Your task to perform on an android device: Add "acer predator" to the cart on walmart.com Image 0: 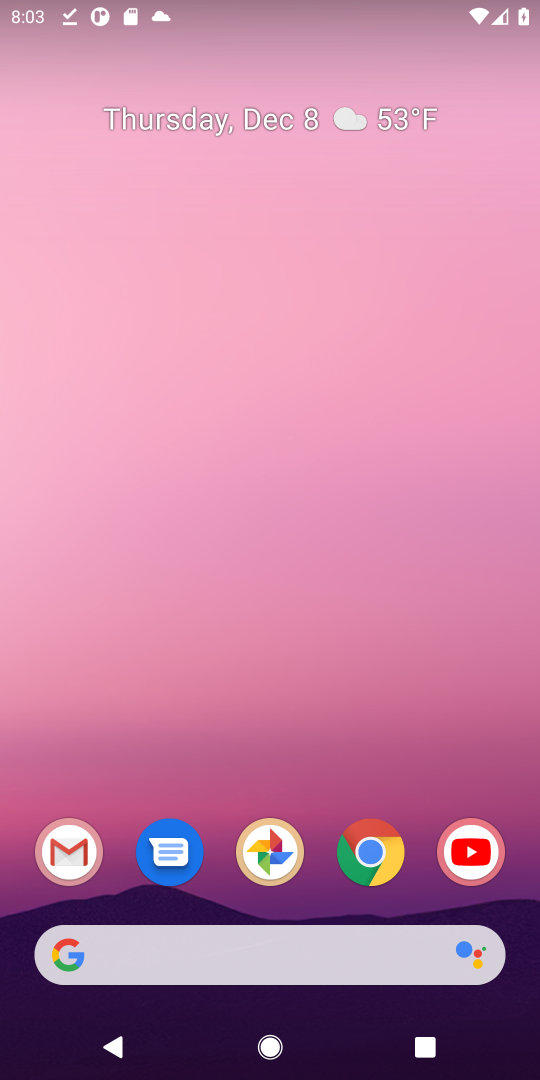
Step 0: click (180, 939)
Your task to perform on an android device: Add "acer predator" to the cart on walmart.com Image 1: 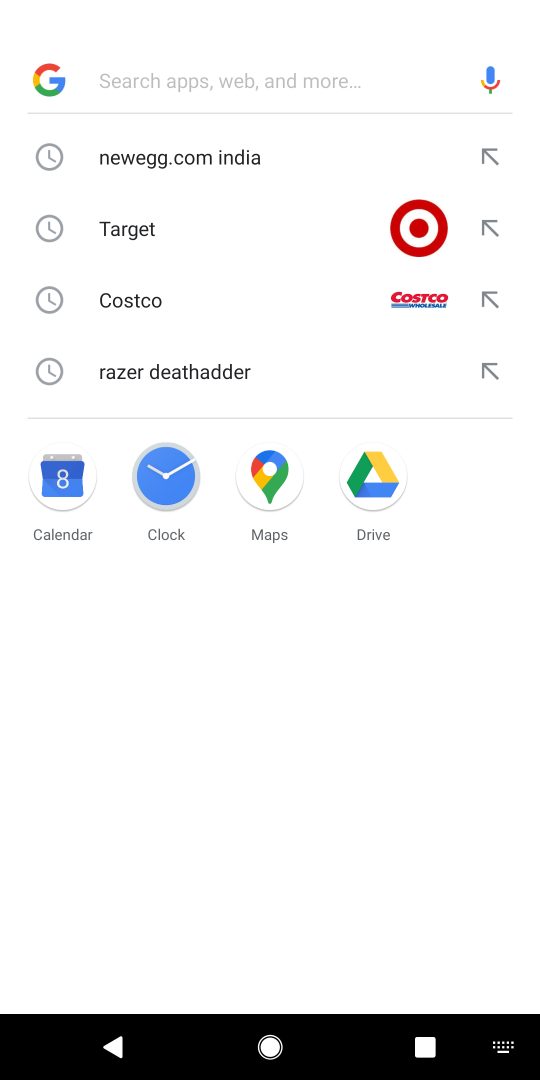
Step 1: type "walmart"
Your task to perform on an android device: Add "acer predator" to the cart on walmart.com Image 2: 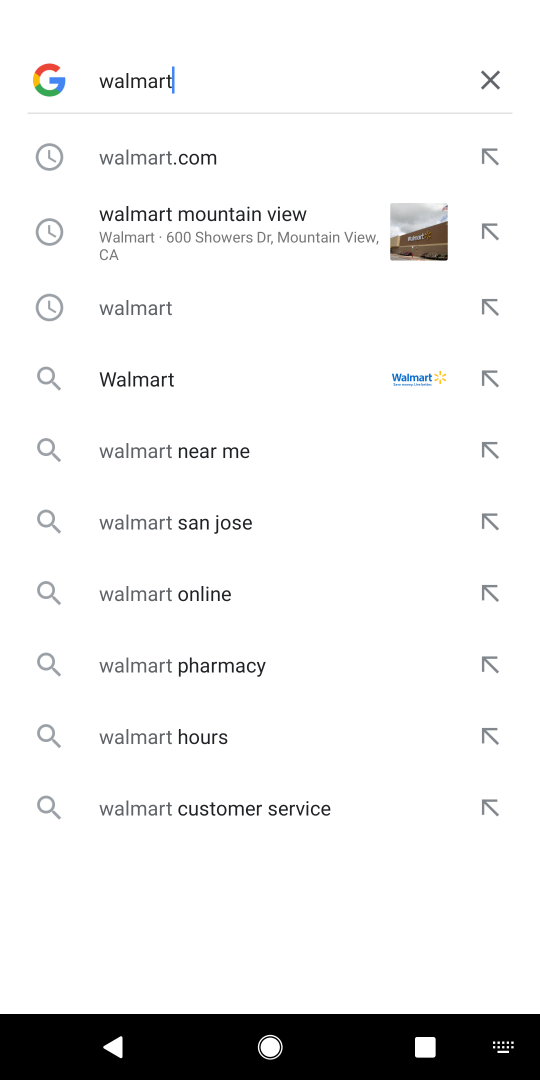
Step 2: click (155, 174)
Your task to perform on an android device: Add "acer predator" to the cart on walmart.com Image 3: 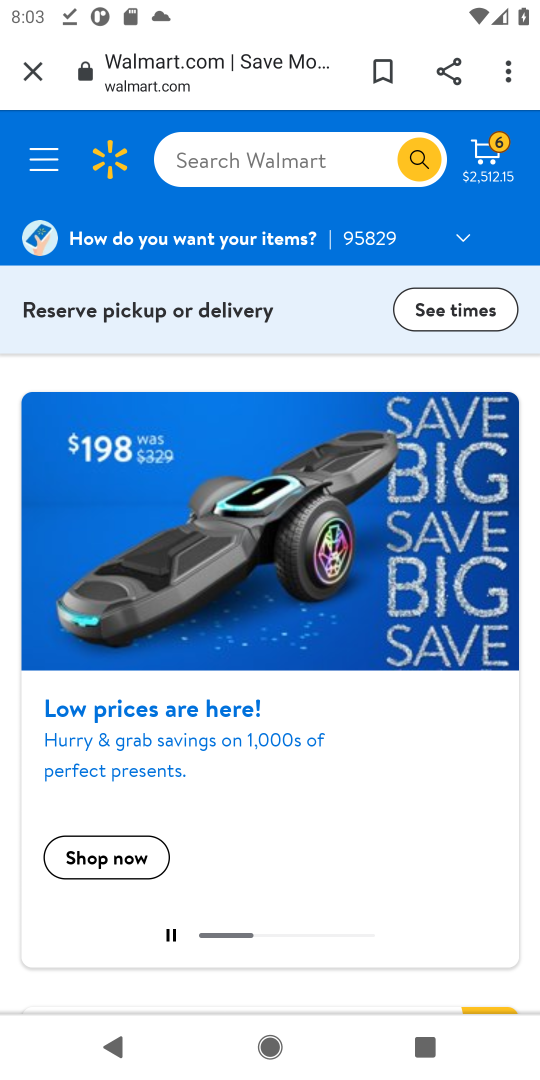
Step 3: click (249, 170)
Your task to perform on an android device: Add "acer predator" to the cart on walmart.com Image 4: 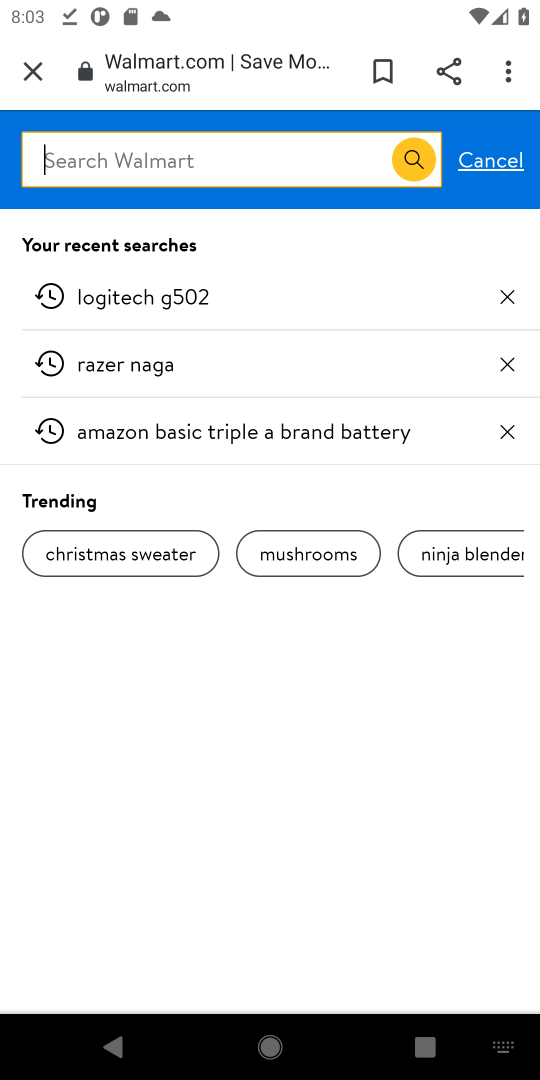
Step 4: type "acer predator"
Your task to perform on an android device: Add "acer predator" to the cart on walmart.com Image 5: 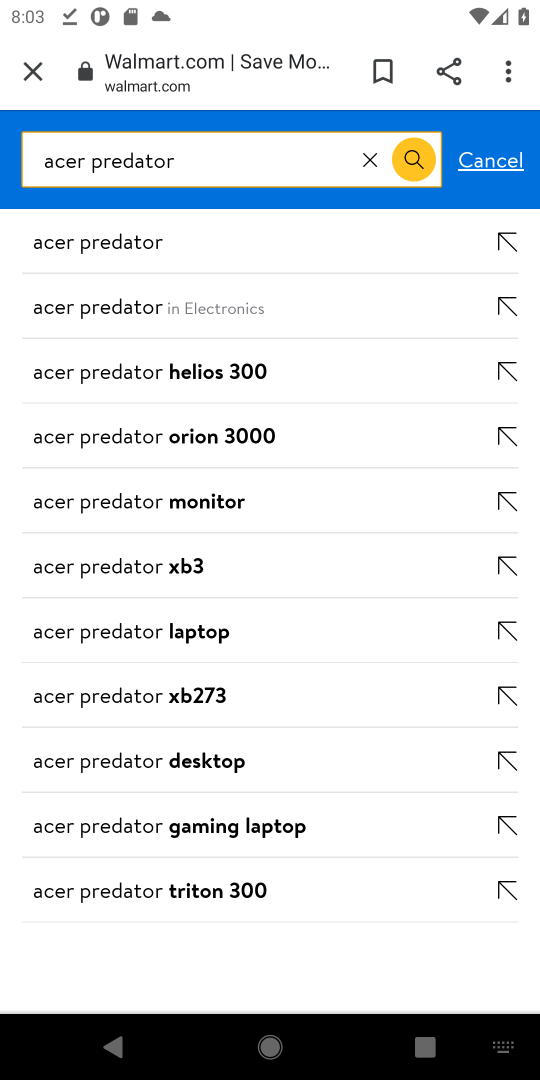
Step 5: click (112, 245)
Your task to perform on an android device: Add "acer predator" to the cart on walmart.com Image 6: 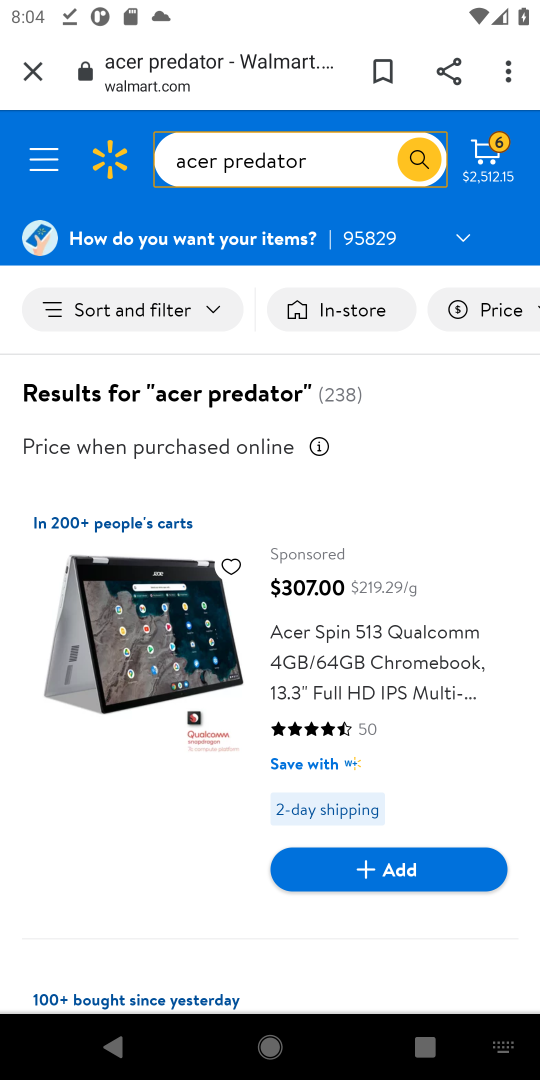
Step 6: click (365, 877)
Your task to perform on an android device: Add "acer predator" to the cart on walmart.com Image 7: 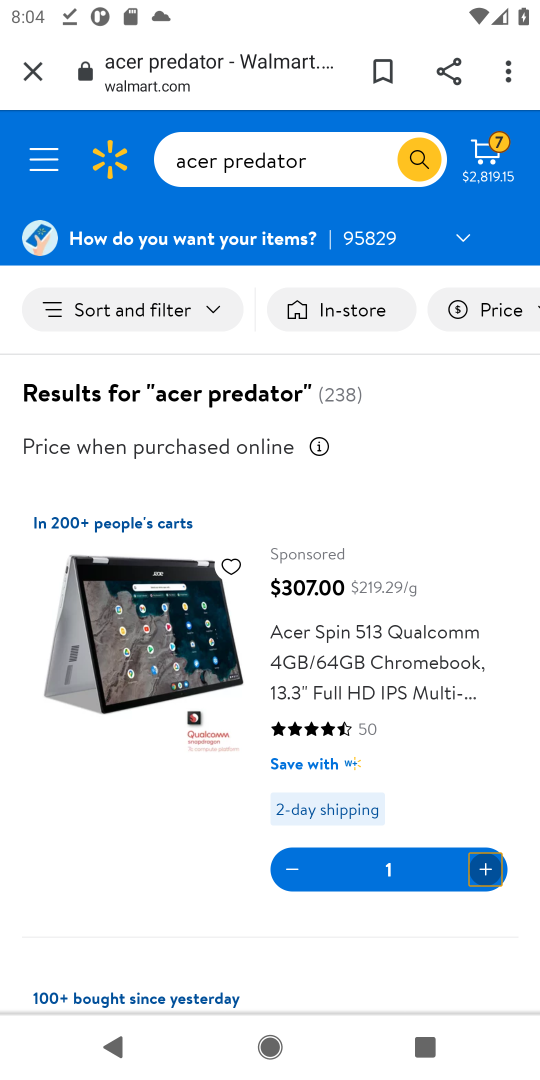
Step 7: task complete